Your task to perform on an android device: Open Amazon Image 0: 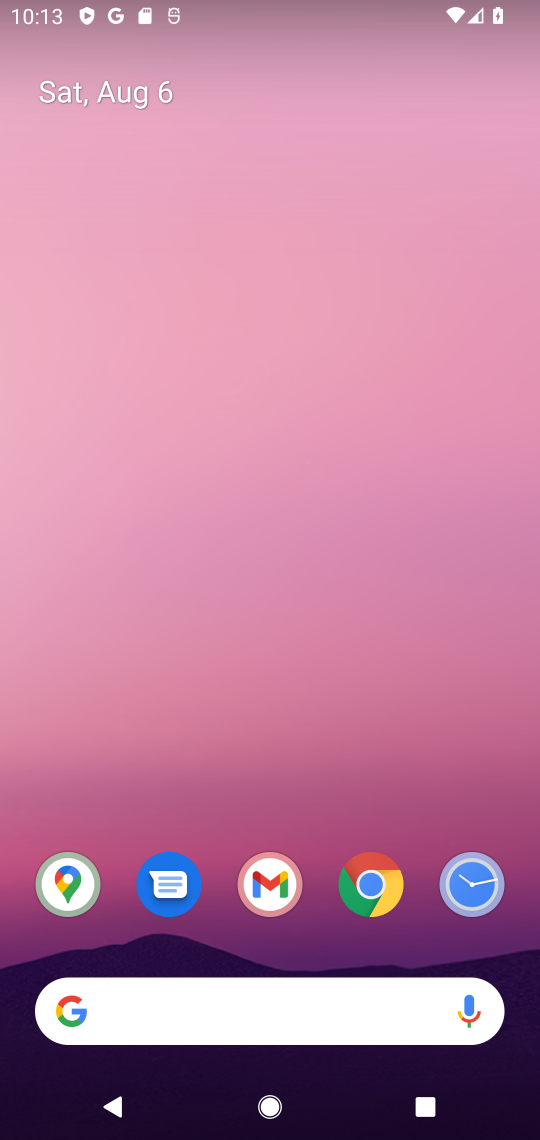
Step 0: click (373, 880)
Your task to perform on an android device: Open Amazon Image 1: 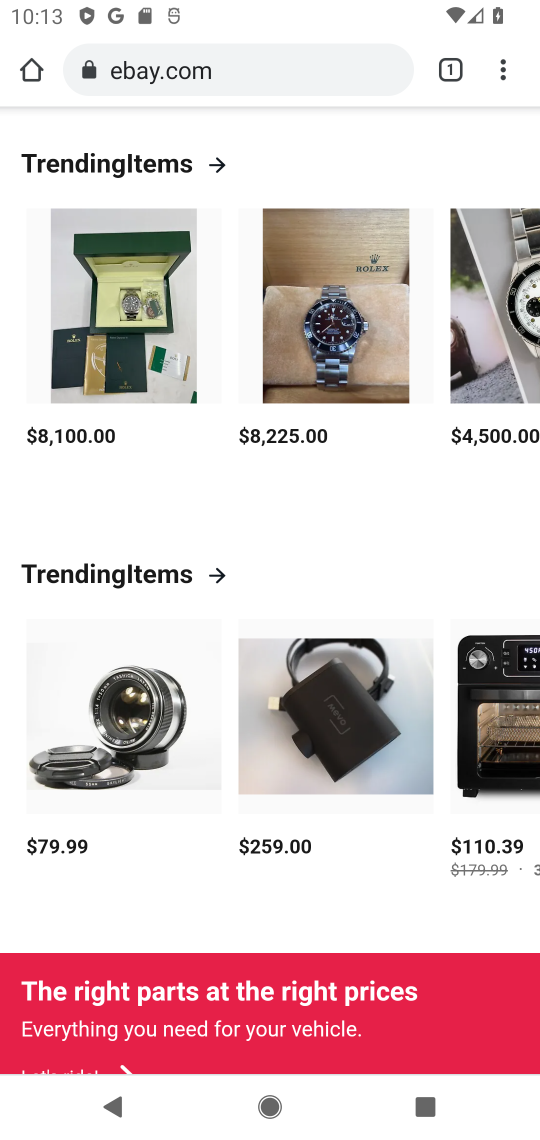
Step 1: click (261, 57)
Your task to perform on an android device: Open Amazon Image 2: 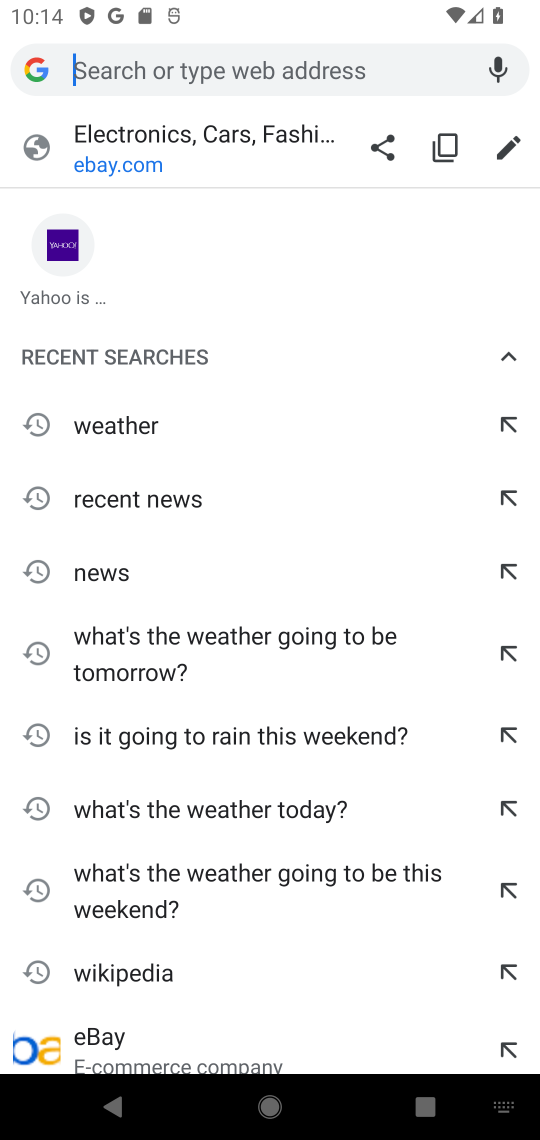
Step 2: type "Amazon"
Your task to perform on an android device: Open Amazon Image 3: 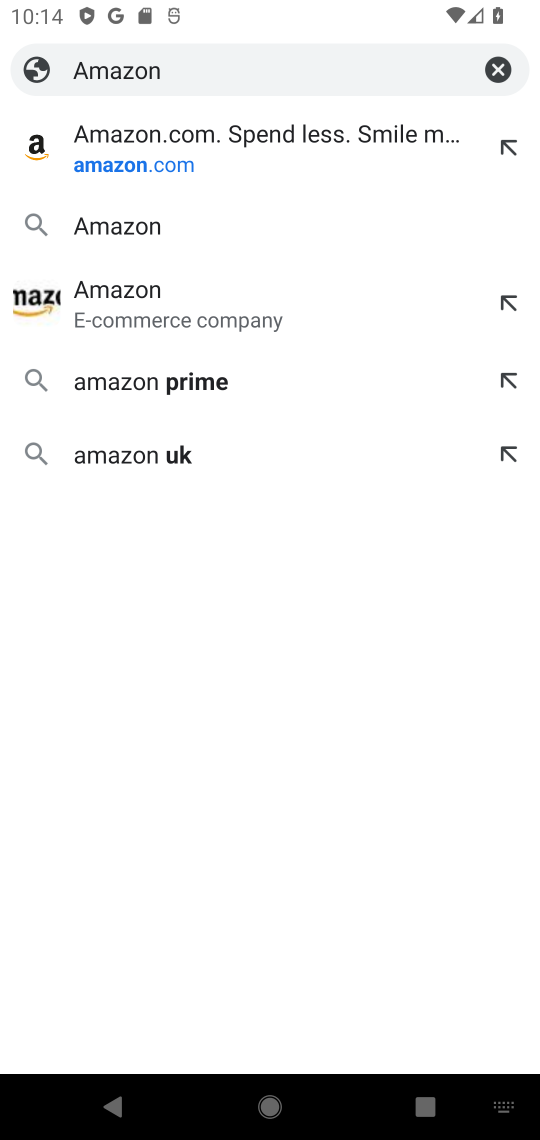
Step 3: click (191, 138)
Your task to perform on an android device: Open Amazon Image 4: 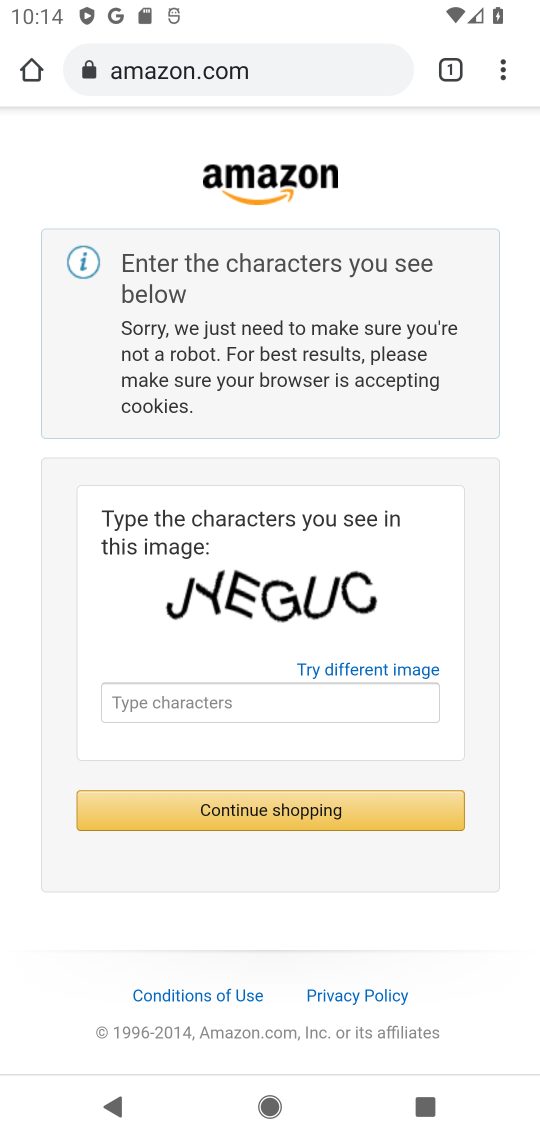
Step 4: task complete